Your task to perform on an android device: Go to Wikipedia Image 0: 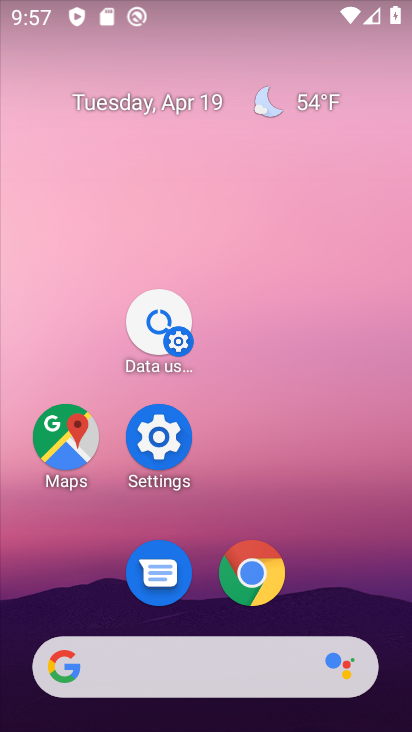
Step 0: click (254, 574)
Your task to perform on an android device: Go to Wikipedia Image 1: 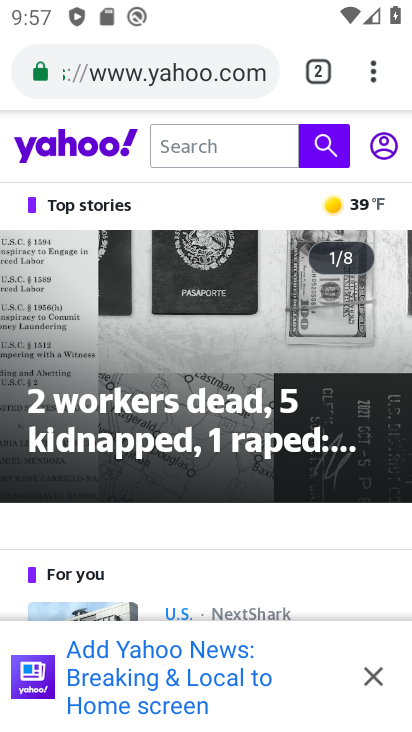
Step 1: click (250, 70)
Your task to perform on an android device: Go to Wikipedia Image 2: 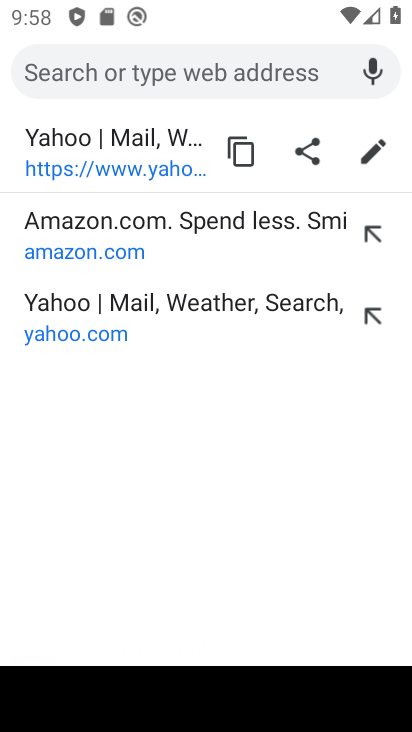
Step 2: type "wikipedia"
Your task to perform on an android device: Go to Wikipedia Image 3: 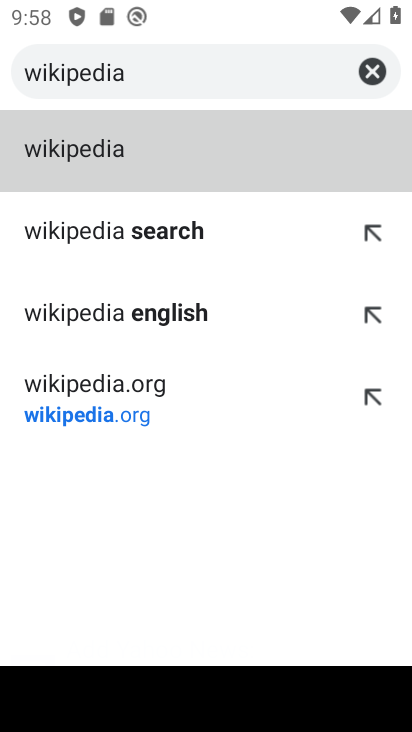
Step 3: click (80, 152)
Your task to perform on an android device: Go to Wikipedia Image 4: 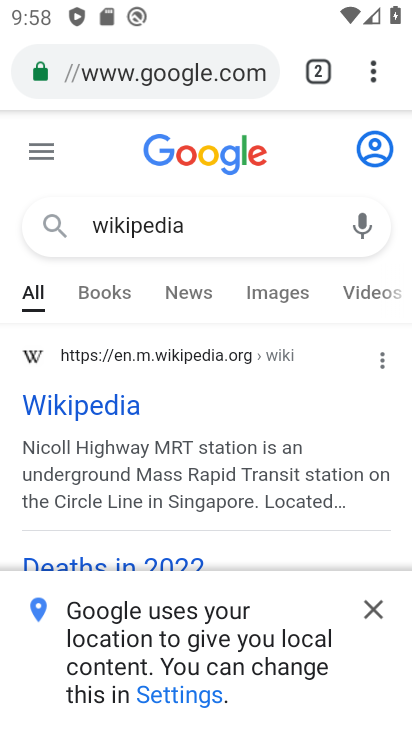
Step 4: click (44, 413)
Your task to perform on an android device: Go to Wikipedia Image 5: 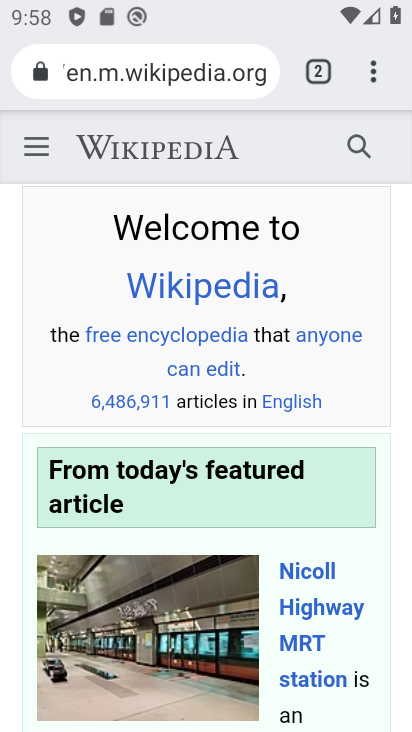
Step 5: task complete